Your task to perform on an android device: change the upload size in google photos Image 0: 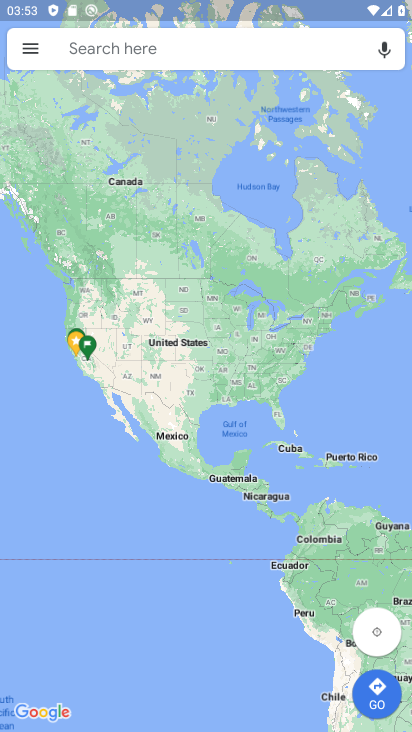
Step 0: press home button
Your task to perform on an android device: change the upload size in google photos Image 1: 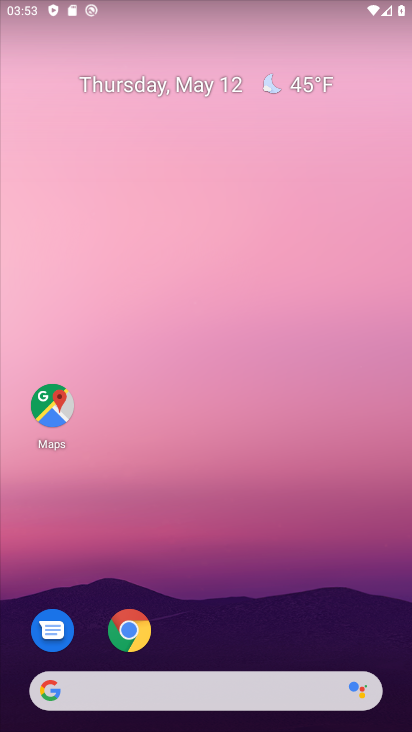
Step 1: drag from (197, 627) to (305, 51)
Your task to perform on an android device: change the upload size in google photos Image 2: 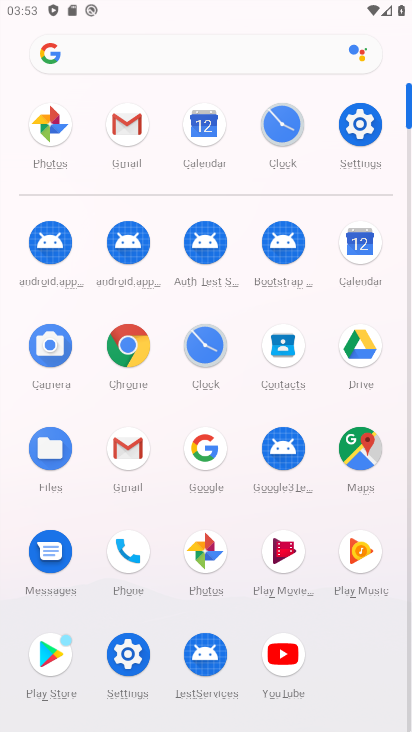
Step 2: click (193, 562)
Your task to perform on an android device: change the upload size in google photos Image 3: 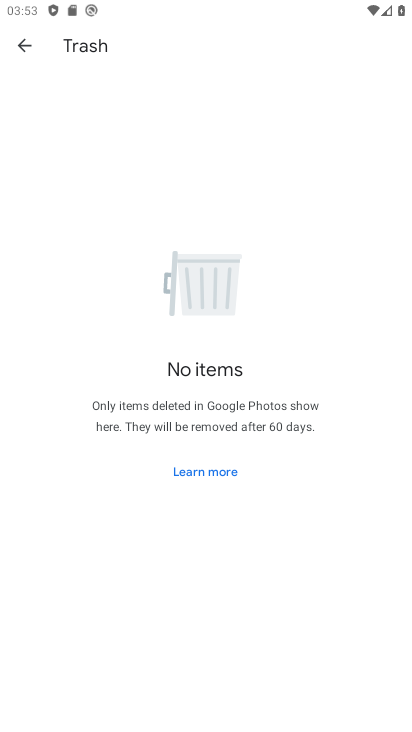
Step 3: click (37, 49)
Your task to perform on an android device: change the upload size in google photos Image 4: 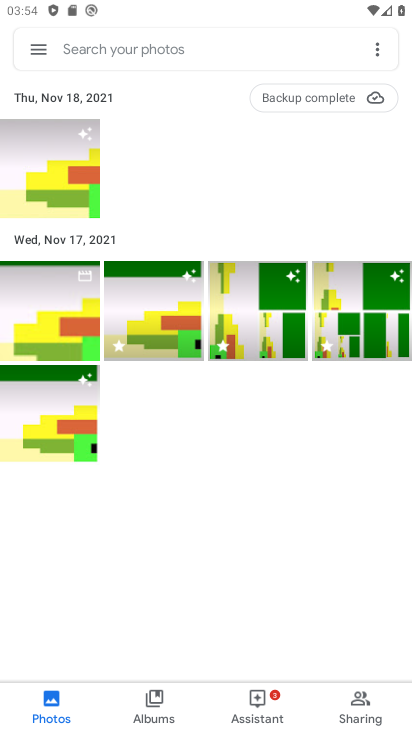
Step 4: click (46, 52)
Your task to perform on an android device: change the upload size in google photos Image 5: 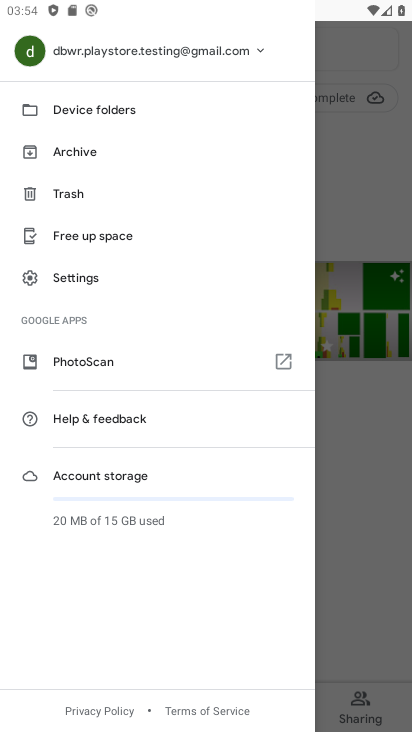
Step 5: click (89, 281)
Your task to perform on an android device: change the upload size in google photos Image 6: 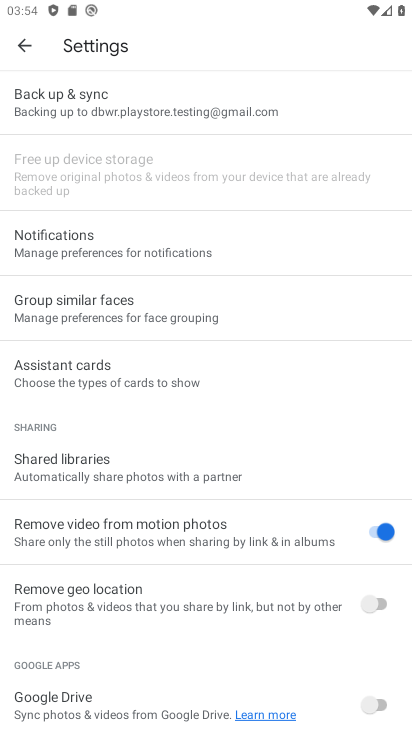
Step 6: click (131, 94)
Your task to perform on an android device: change the upload size in google photos Image 7: 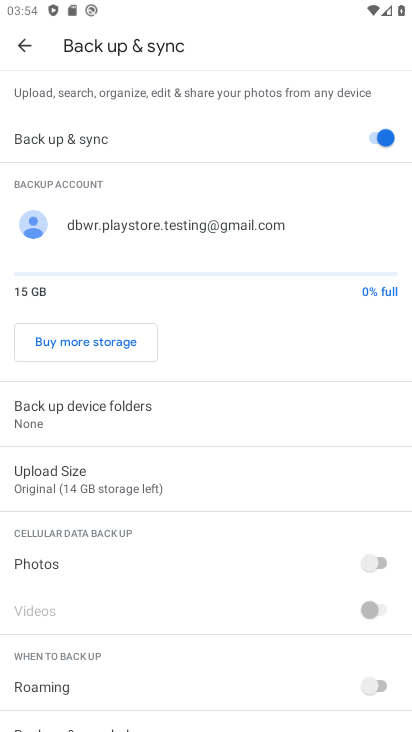
Step 7: click (137, 498)
Your task to perform on an android device: change the upload size in google photos Image 8: 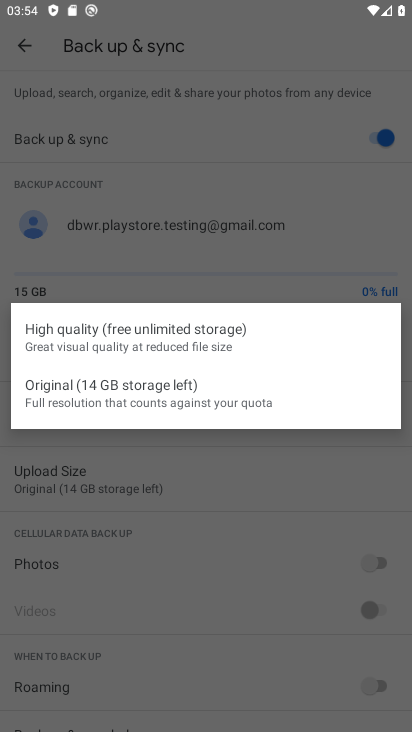
Step 8: click (145, 328)
Your task to perform on an android device: change the upload size in google photos Image 9: 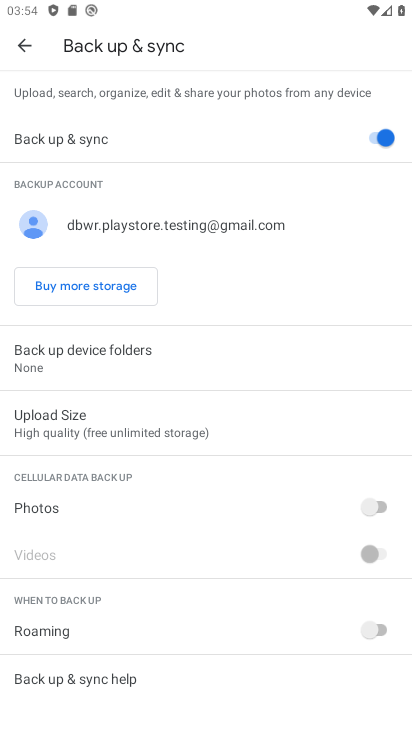
Step 9: task complete